Your task to perform on an android device: turn off priority inbox in the gmail app Image 0: 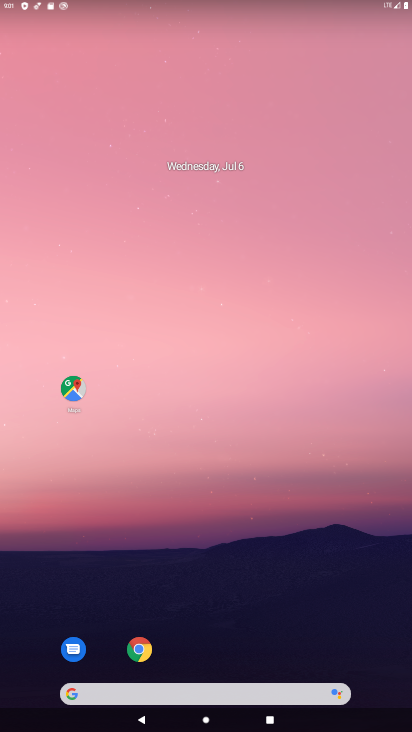
Step 0: drag from (197, 663) to (137, 108)
Your task to perform on an android device: turn off priority inbox in the gmail app Image 1: 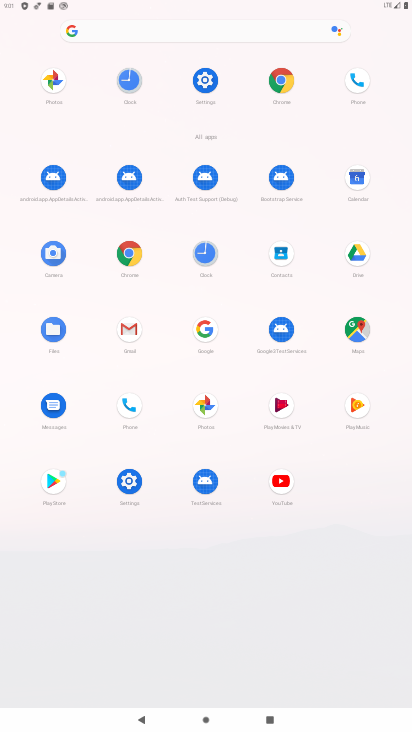
Step 1: click (194, 73)
Your task to perform on an android device: turn off priority inbox in the gmail app Image 2: 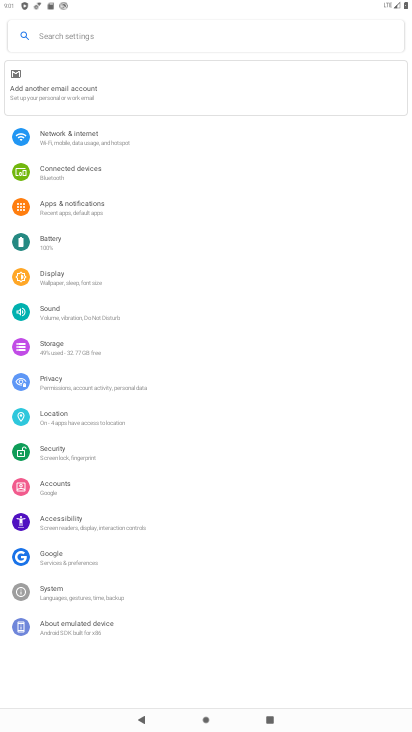
Step 2: press home button
Your task to perform on an android device: turn off priority inbox in the gmail app Image 3: 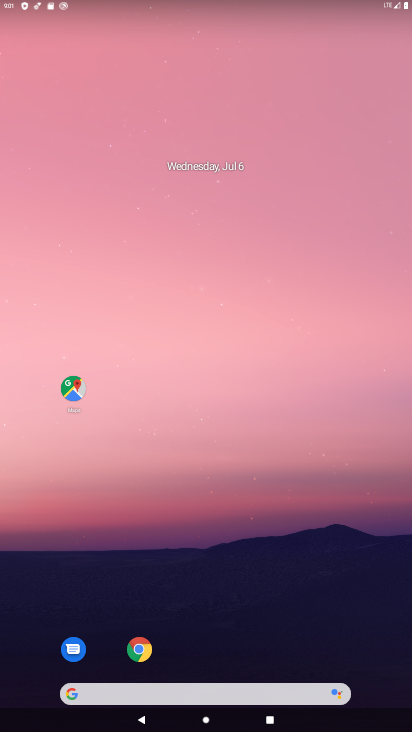
Step 3: drag from (193, 657) to (234, 21)
Your task to perform on an android device: turn off priority inbox in the gmail app Image 4: 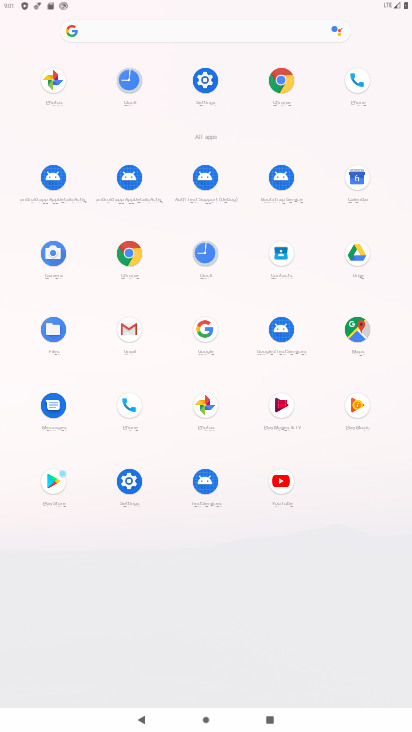
Step 4: click (124, 331)
Your task to perform on an android device: turn off priority inbox in the gmail app Image 5: 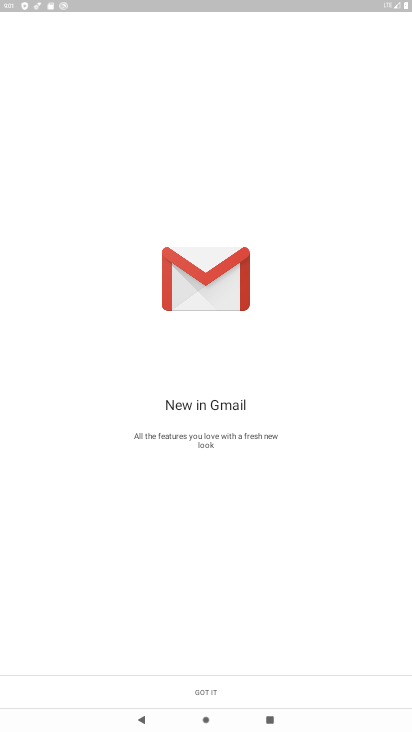
Step 5: click (226, 698)
Your task to perform on an android device: turn off priority inbox in the gmail app Image 6: 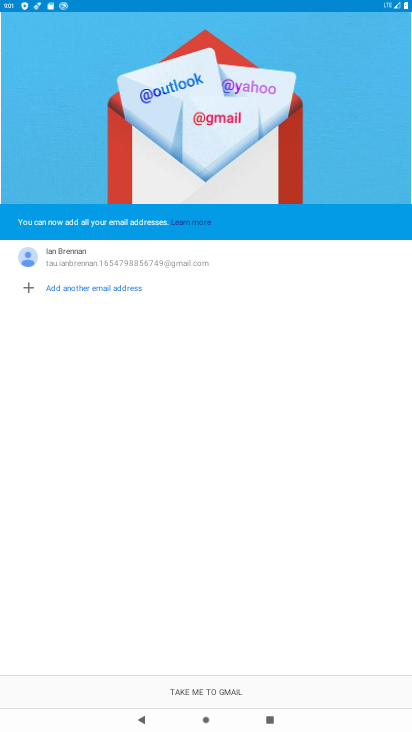
Step 6: click (226, 698)
Your task to perform on an android device: turn off priority inbox in the gmail app Image 7: 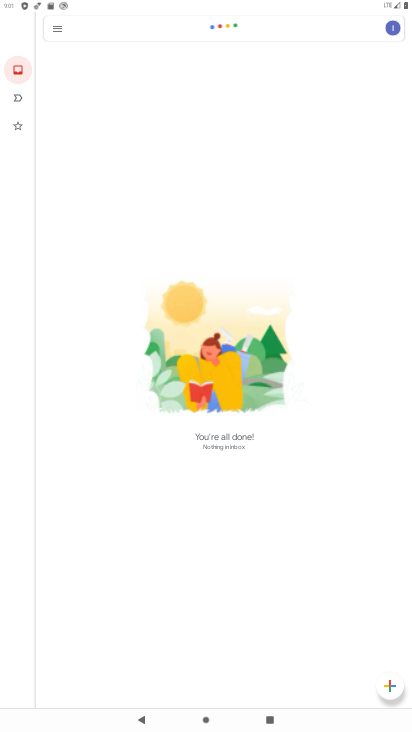
Step 7: click (56, 33)
Your task to perform on an android device: turn off priority inbox in the gmail app Image 8: 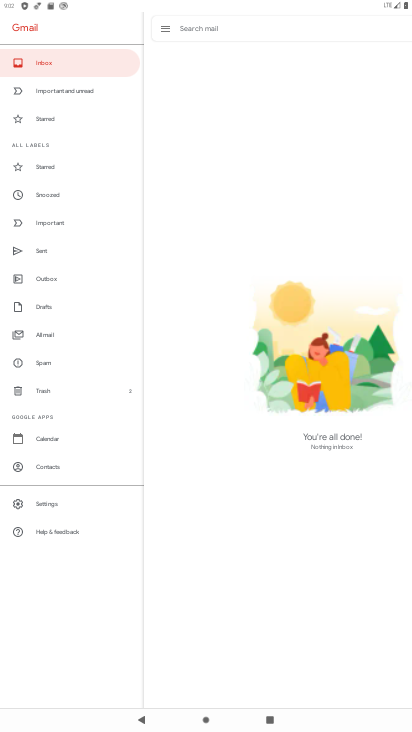
Step 8: click (44, 508)
Your task to perform on an android device: turn off priority inbox in the gmail app Image 9: 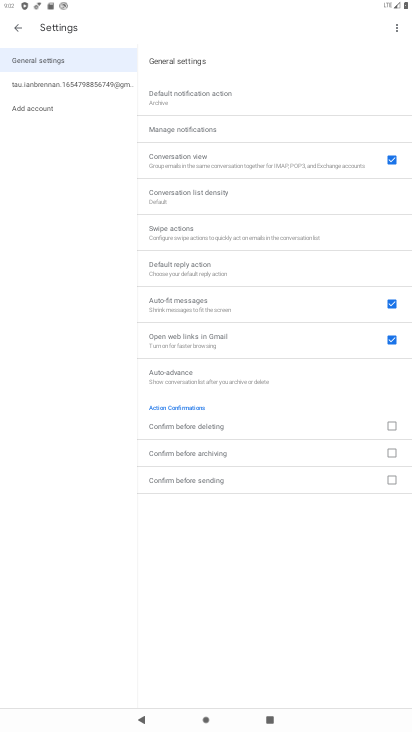
Step 9: click (94, 91)
Your task to perform on an android device: turn off priority inbox in the gmail app Image 10: 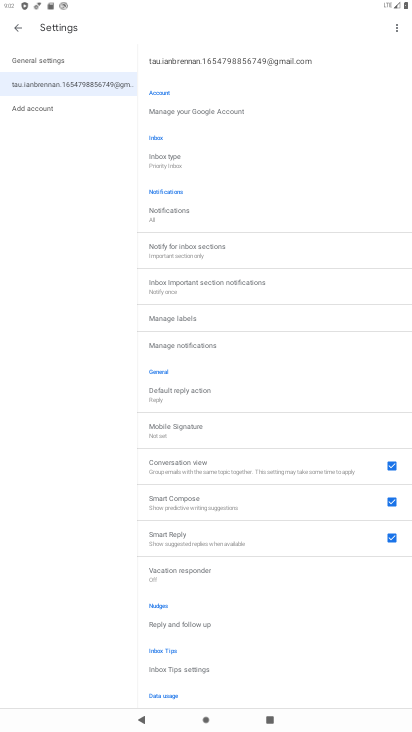
Step 10: click (163, 159)
Your task to perform on an android device: turn off priority inbox in the gmail app Image 11: 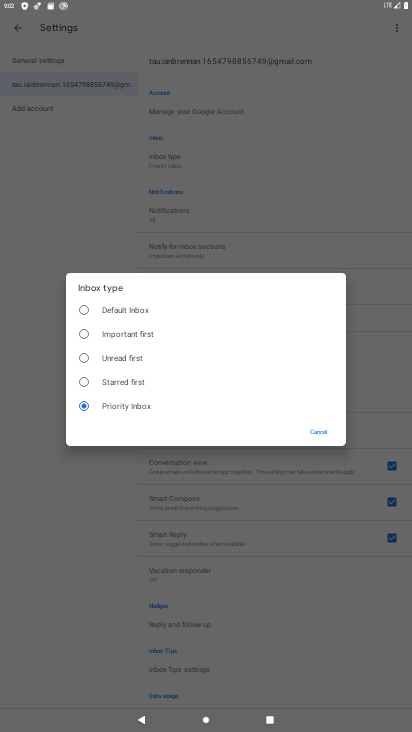
Step 11: click (113, 314)
Your task to perform on an android device: turn off priority inbox in the gmail app Image 12: 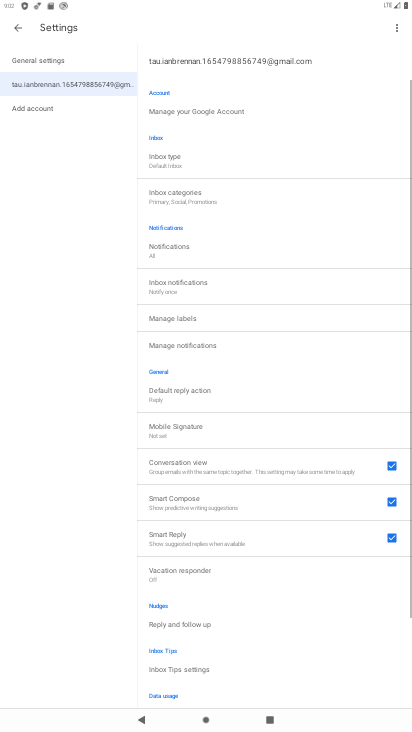
Step 12: task complete